Your task to perform on an android device: Open Chrome and go to settings Image 0: 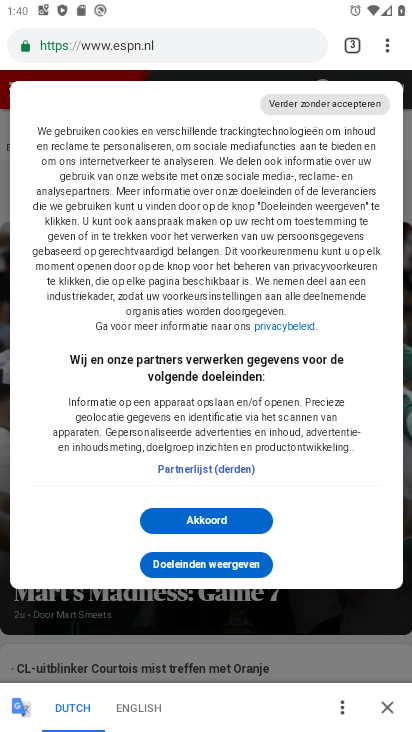
Step 0: click (381, 47)
Your task to perform on an android device: Open Chrome and go to settings Image 1: 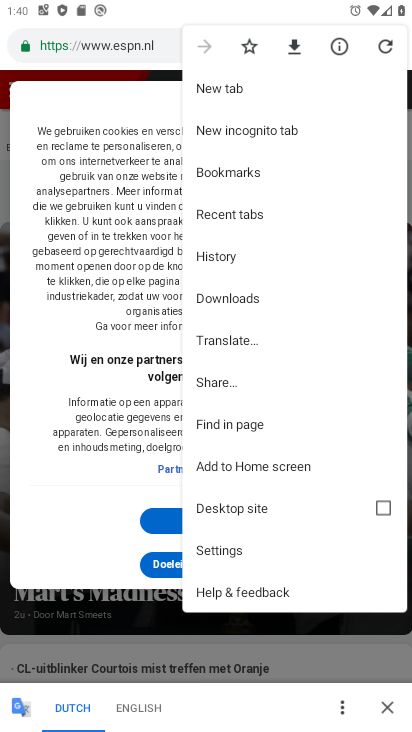
Step 1: click (233, 557)
Your task to perform on an android device: Open Chrome and go to settings Image 2: 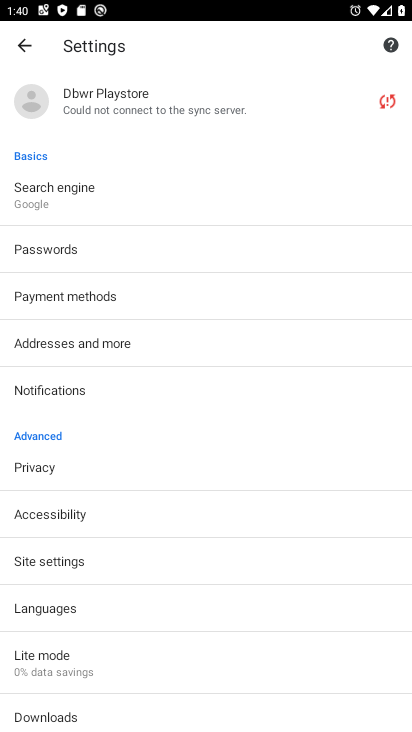
Step 2: task complete